Your task to perform on an android device: open app "Facebook Lite" (install if not already installed), go to login, and select forgot password Image 0: 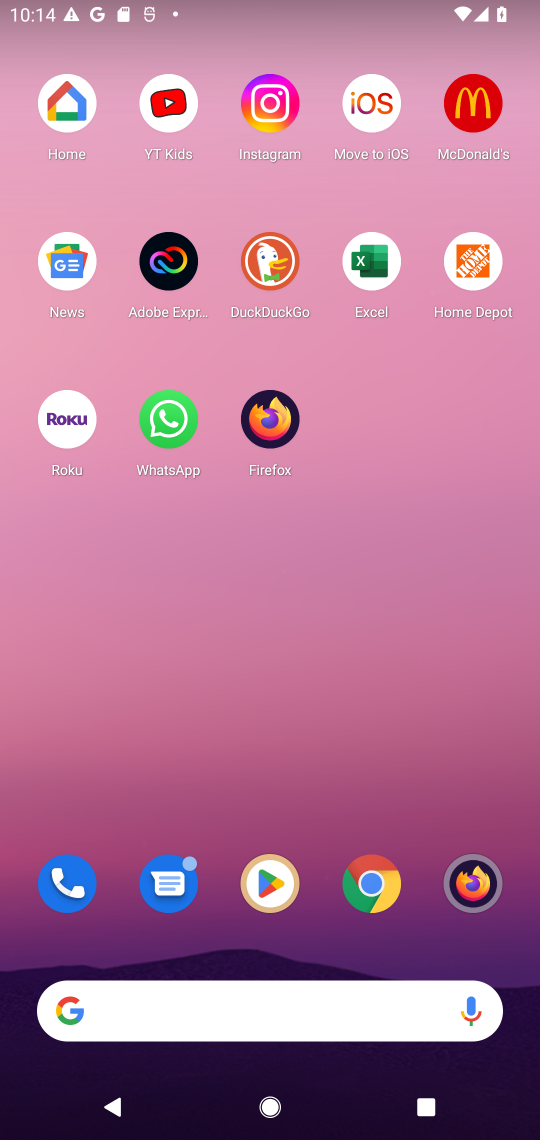
Step 0: press home button
Your task to perform on an android device: open app "Facebook Lite" (install if not already installed), go to login, and select forgot password Image 1: 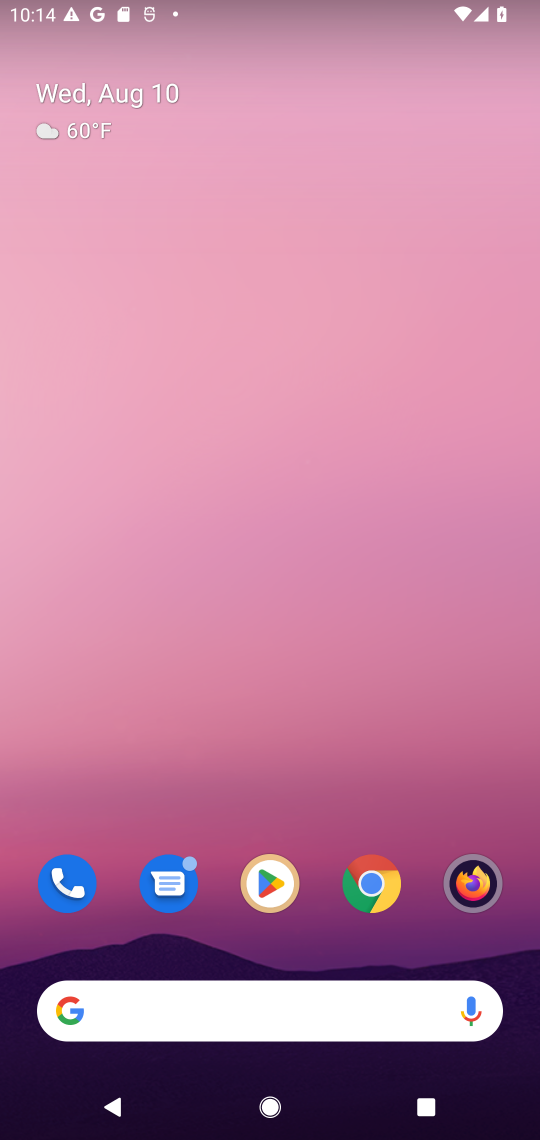
Step 1: drag from (418, 741) to (381, 80)
Your task to perform on an android device: open app "Facebook Lite" (install if not already installed), go to login, and select forgot password Image 2: 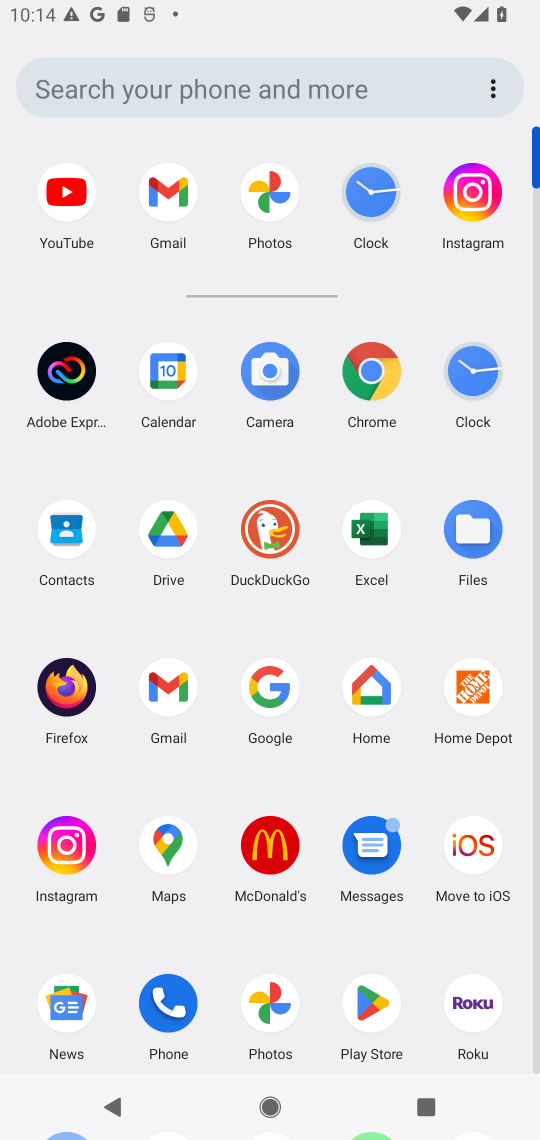
Step 2: click (369, 1004)
Your task to perform on an android device: open app "Facebook Lite" (install if not already installed), go to login, and select forgot password Image 3: 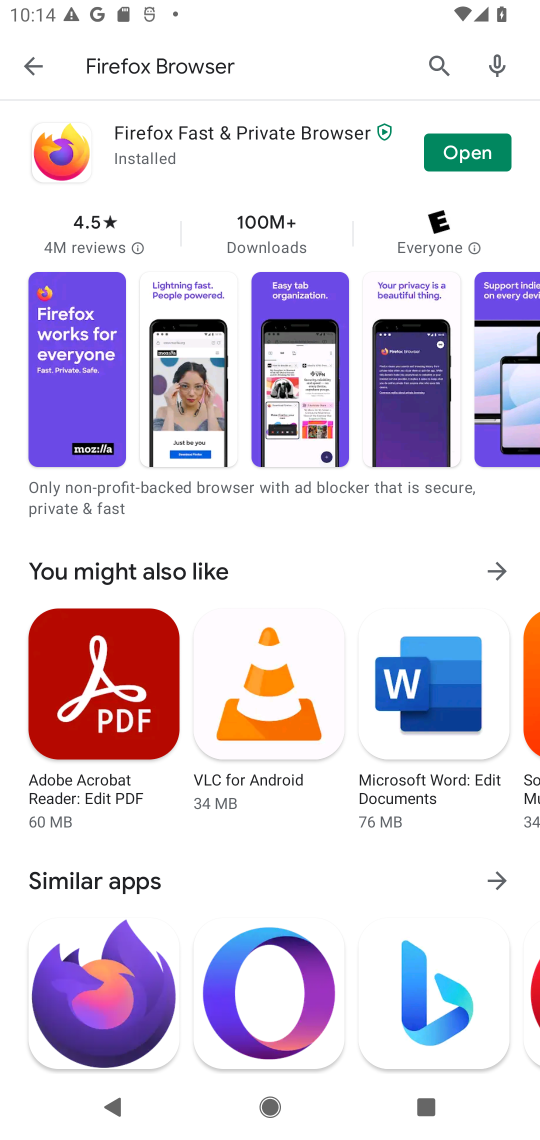
Step 3: click (431, 63)
Your task to perform on an android device: open app "Facebook Lite" (install if not already installed), go to login, and select forgot password Image 4: 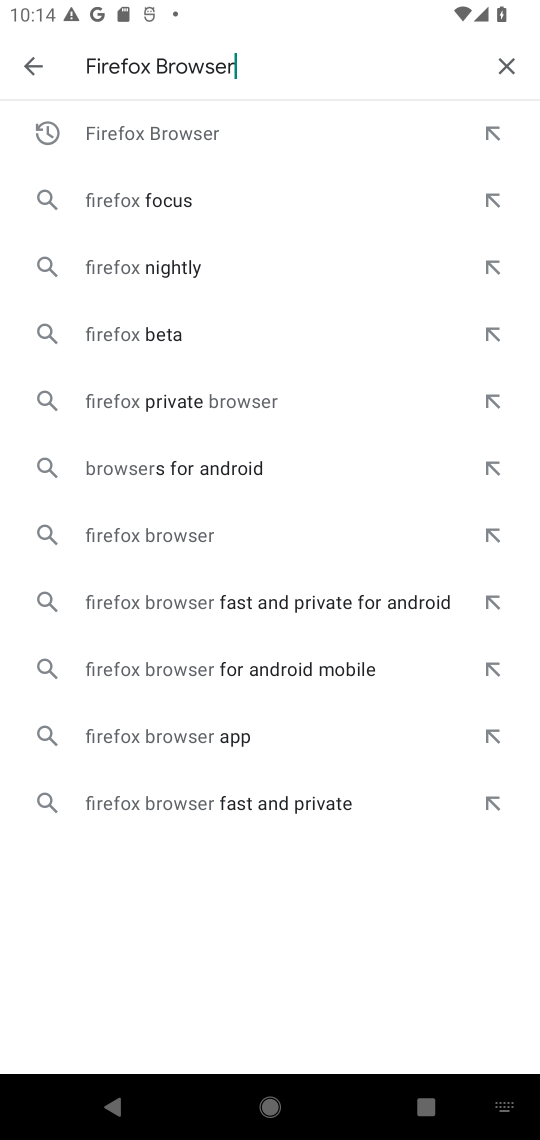
Step 4: click (497, 58)
Your task to perform on an android device: open app "Facebook Lite" (install if not already installed), go to login, and select forgot password Image 5: 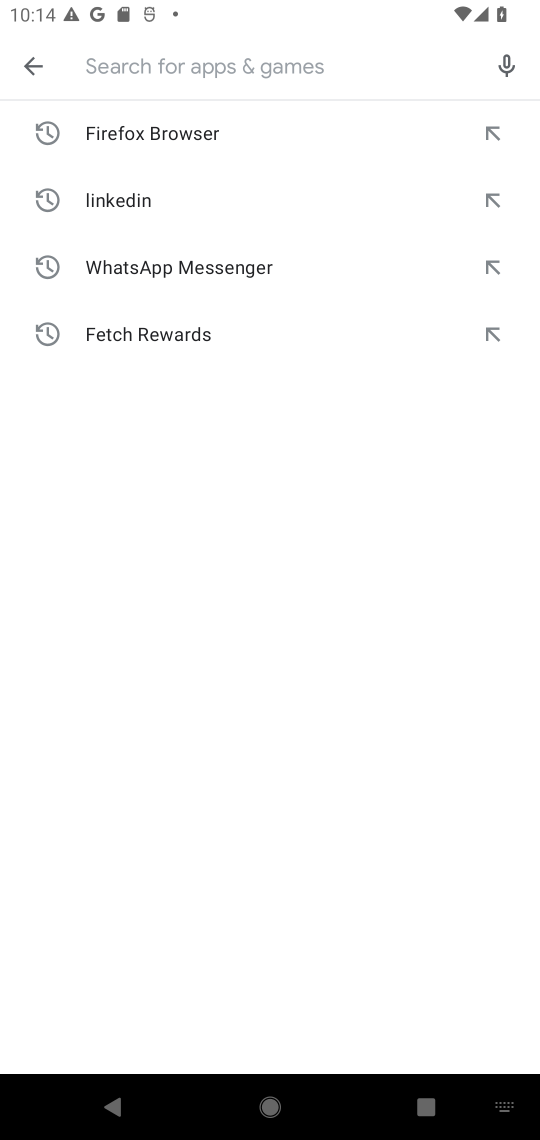
Step 5: press enter
Your task to perform on an android device: open app "Facebook Lite" (install if not already installed), go to login, and select forgot password Image 6: 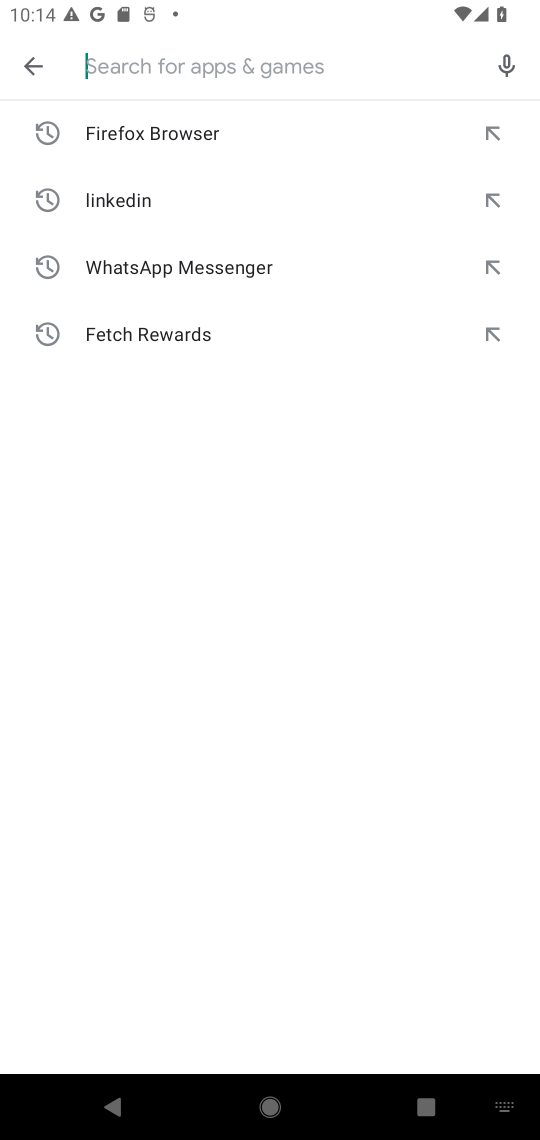
Step 6: type "Facebook Lite"
Your task to perform on an android device: open app "Facebook Lite" (install if not already installed), go to login, and select forgot password Image 7: 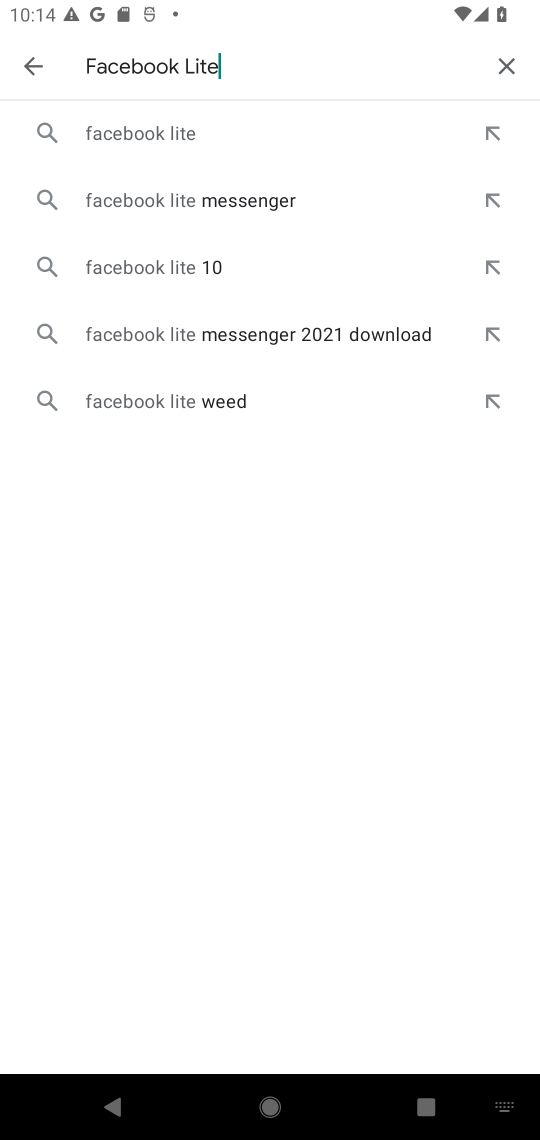
Step 7: click (273, 130)
Your task to perform on an android device: open app "Facebook Lite" (install if not already installed), go to login, and select forgot password Image 8: 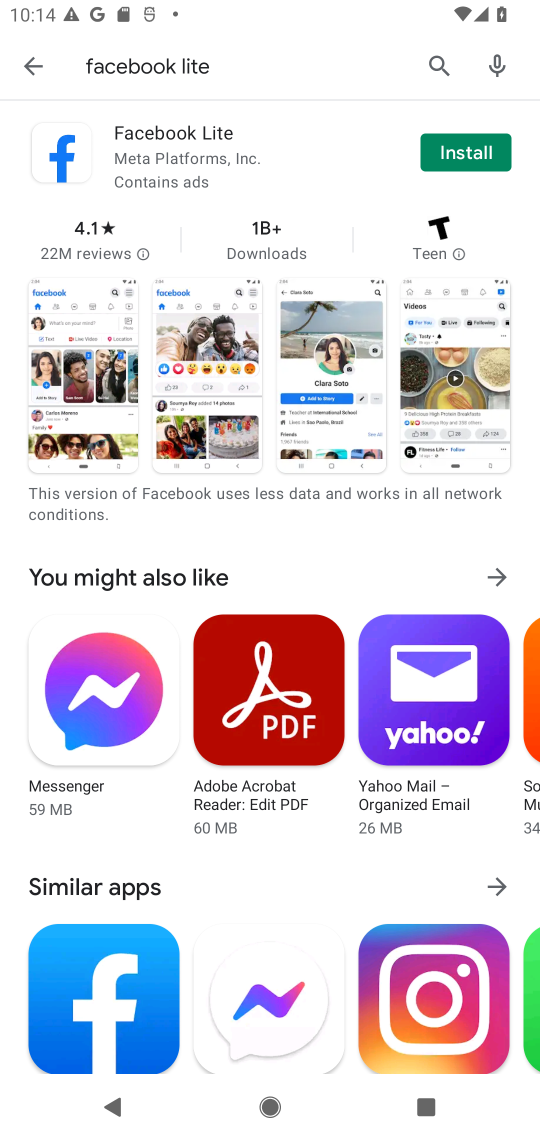
Step 8: click (448, 156)
Your task to perform on an android device: open app "Facebook Lite" (install if not already installed), go to login, and select forgot password Image 9: 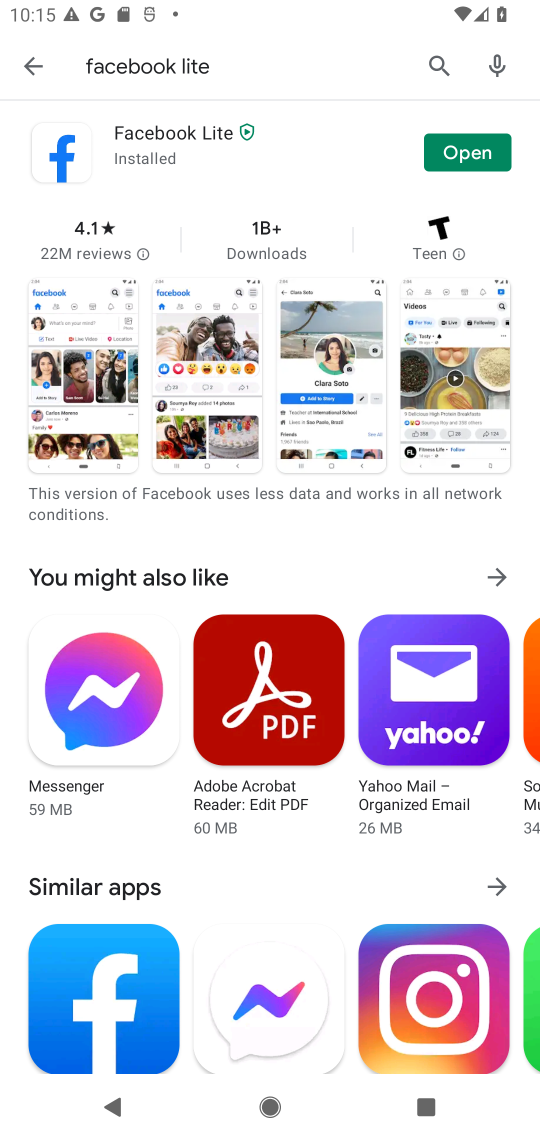
Step 9: click (457, 149)
Your task to perform on an android device: open app "Facebook Lite" (install if not already installed), go to login, and select forgot password Image 10: 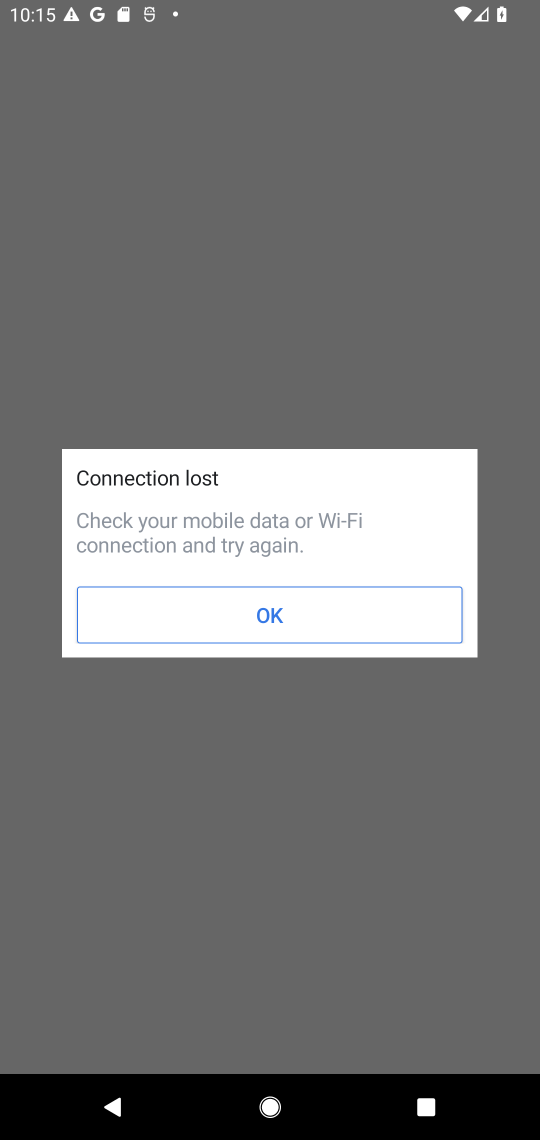
Step 10: task complete